Your task to perform on an android device: Where can I buy a nice beach sandals? Image 0: 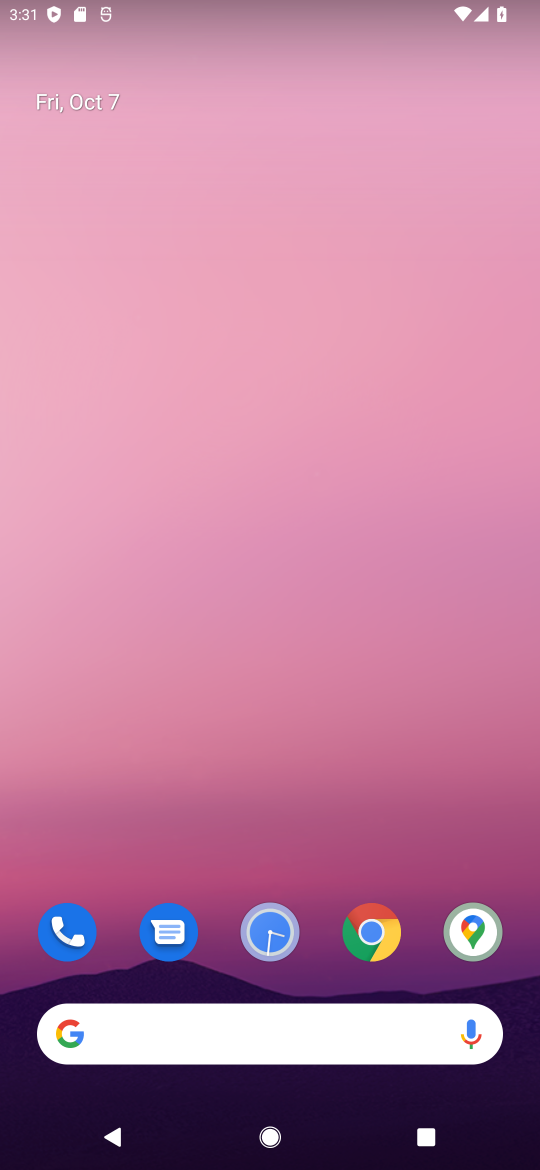
Step 0: drag from (186, 1066) to (399, 153)
Your task to perform on an android device: Where can I buy a nice beach sandals? Image 1: 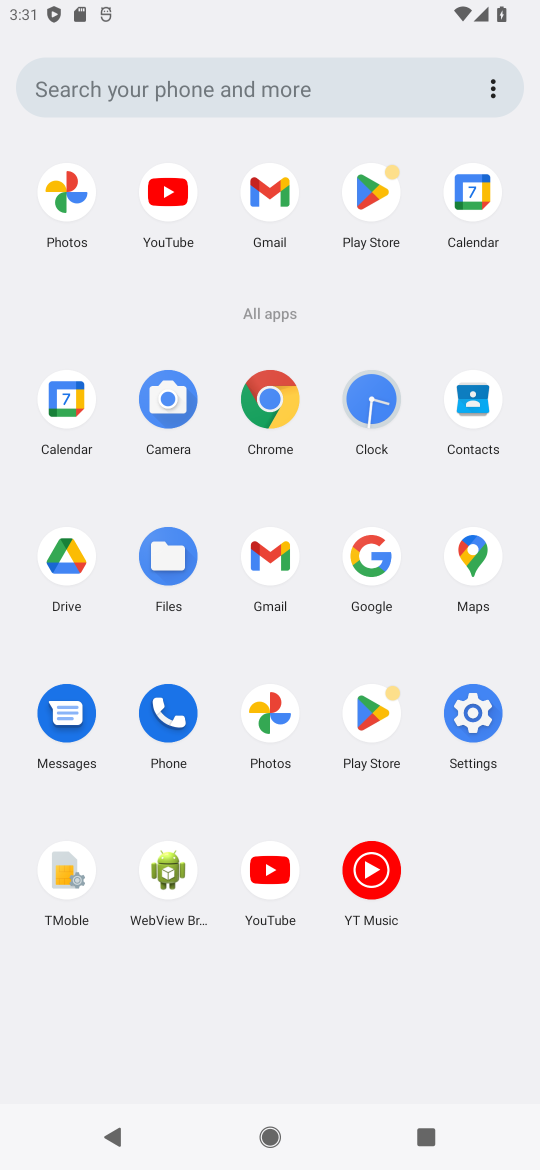
Step 1: click (371, 546)
Your task to perform on an android device: Where can I buy a nice beach sandals? Image 2: 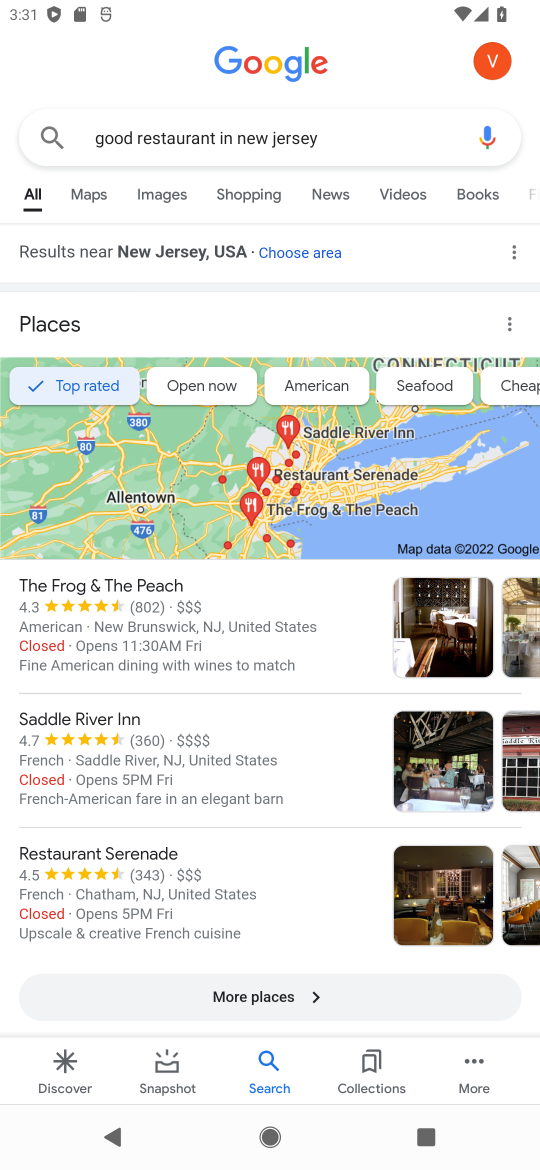
Step 2: click (410, 130)
Your task to perform on an android device: Where can I buy a nice beach sandals? Image 3: 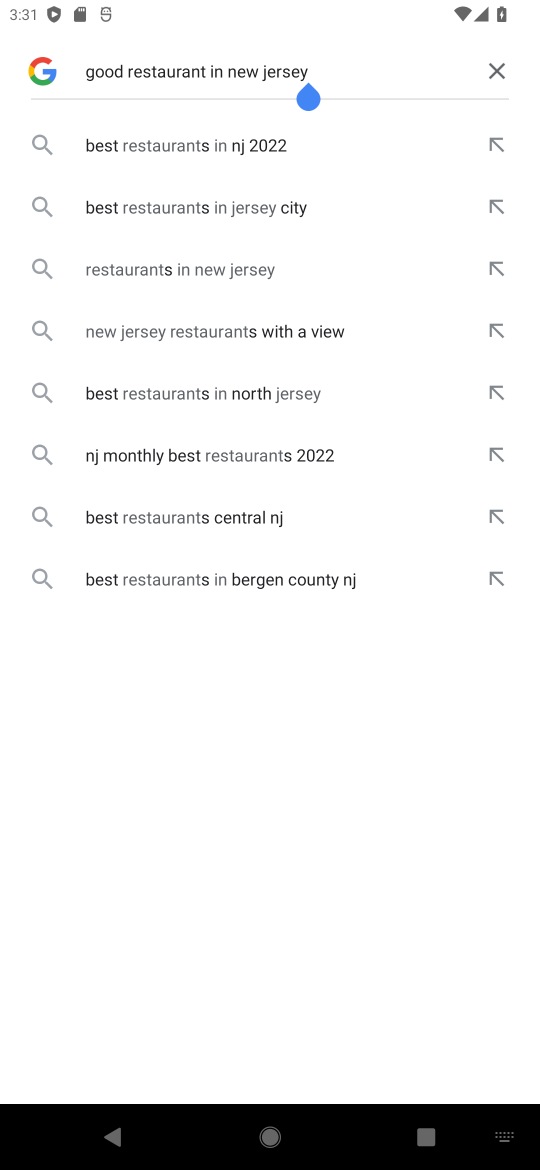
Step 3: click (501, 62)
Your task to perform on an android device: Where can I buy a nice beach sandals? Image 4: 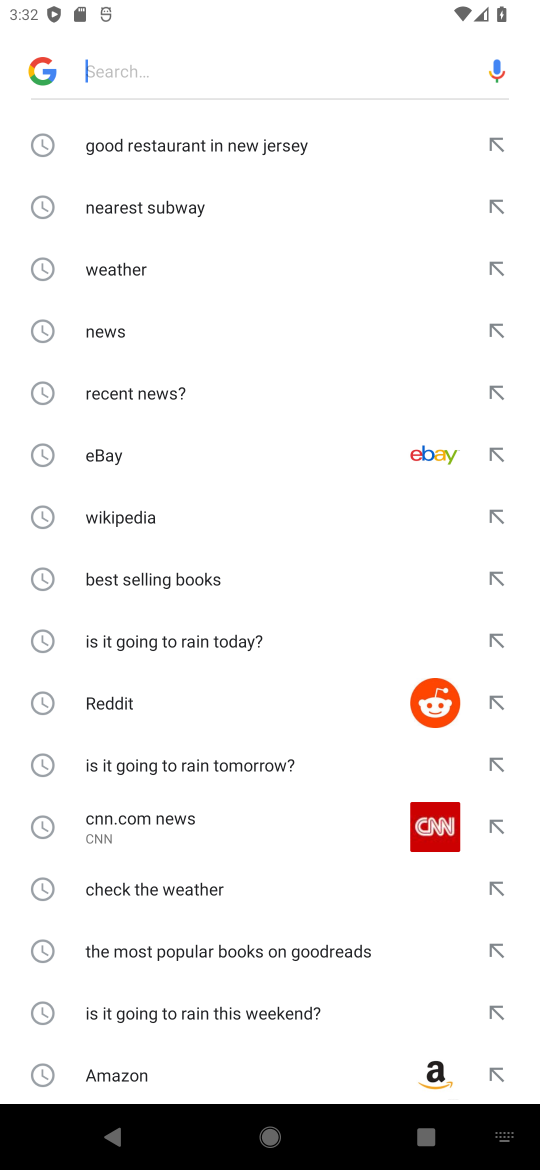
Step 4: type "nice beach sandals"
Your task to perform on an android device: Where can I buy a nice beach sandals? Image 5: 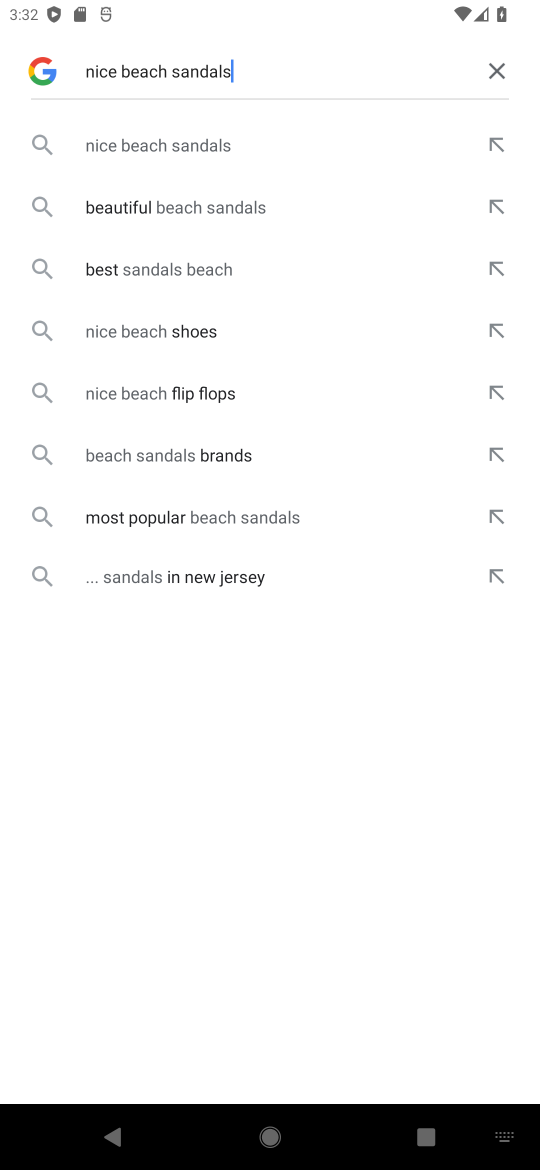
Step 5: click (341, 142)
Your task to perform on an android device: Where can I buy a nice beach sandals? Image 6: 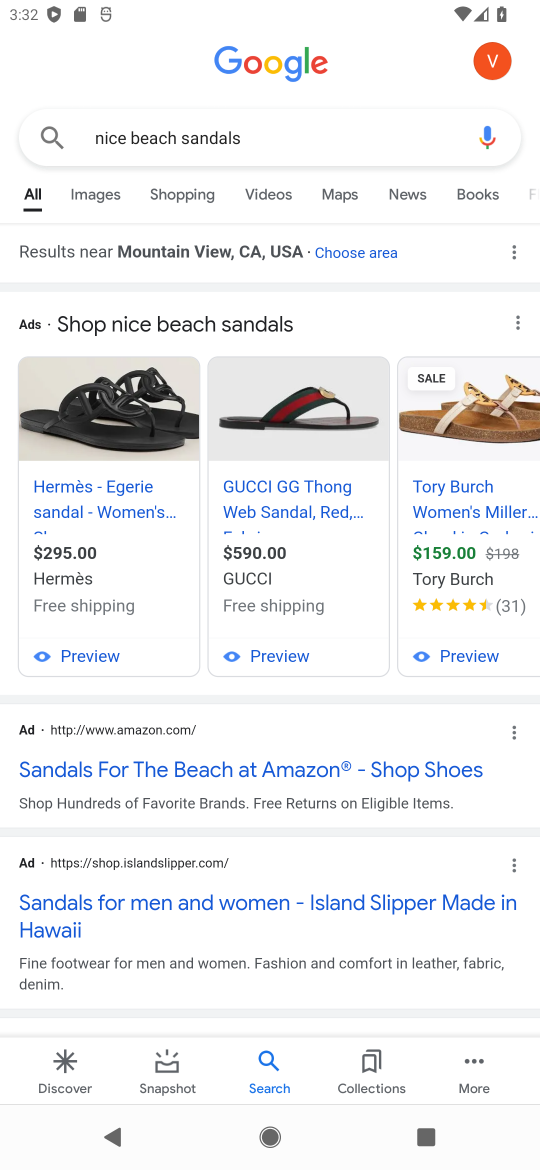
Step 6: task complete